Your task to perform on an android device: change text size in settings app Image 0: 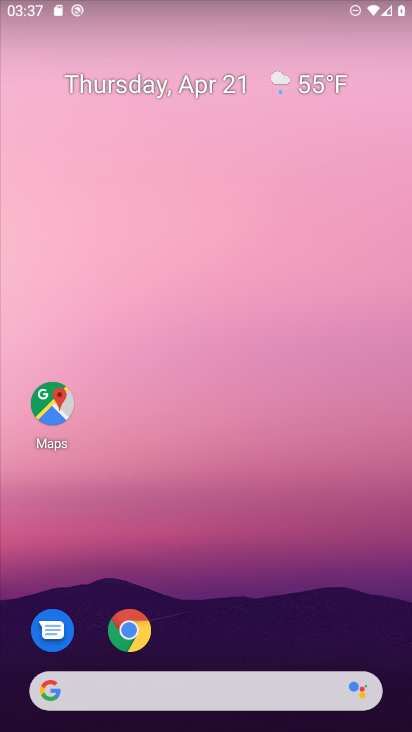
Step 0: drag from (297, 610) to (268, 47)
Your task to perform on an android device: change text size in settings app Image 1: 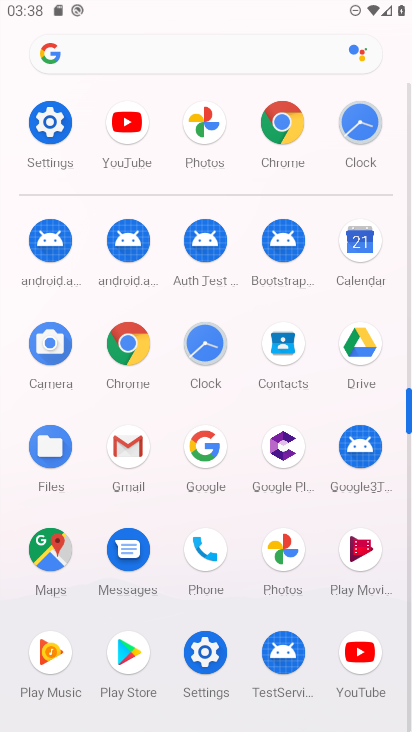
Step 1: click (208, 646)
Your task to perform on an android device: change text size in settings app Image 2: 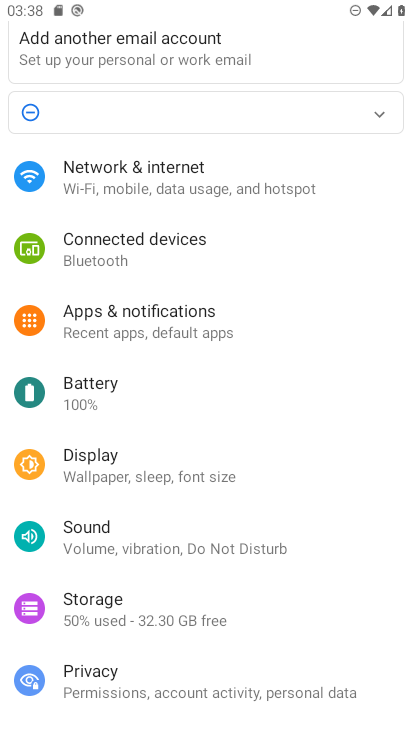
Step 2: click (225, 489)
Your task to perform on an android device: change text size in settings app Image 3: 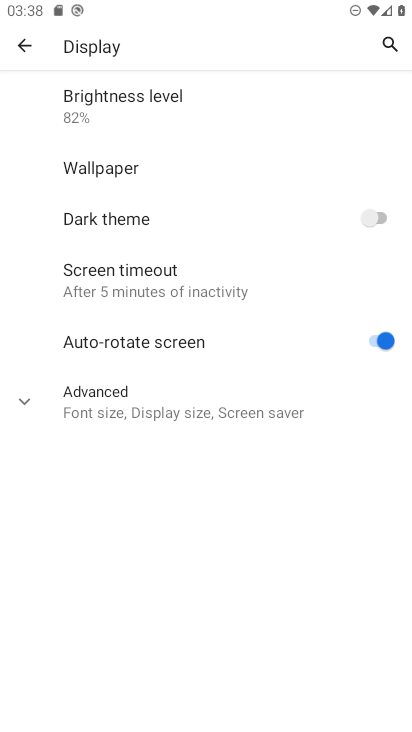
Step 3: click (238, 380)
Your task to perform on an android device: change text size in settings app Image 4: 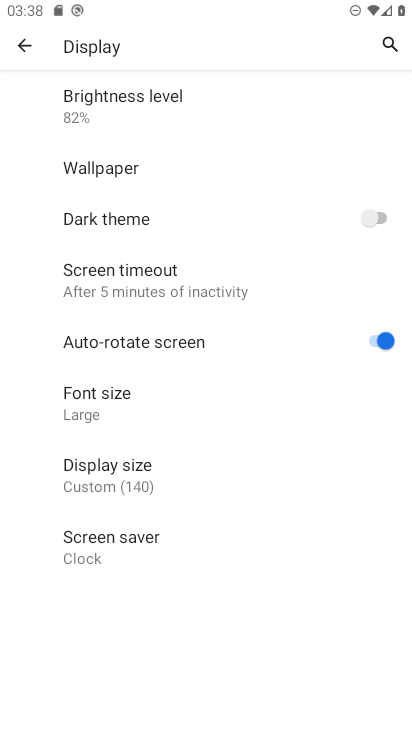
Step 4: click (186, 406)
Your task to perform on an android device: change text size in settings app Image 5: 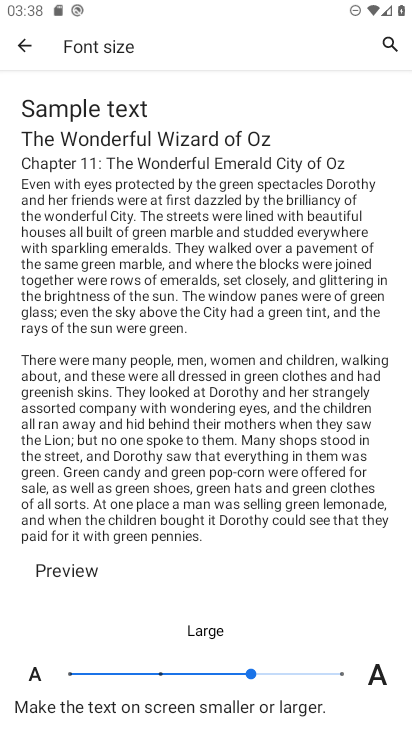
Step 5: click (160, 671)
Your task to perform on an android device: change text size in settings app Image 6: 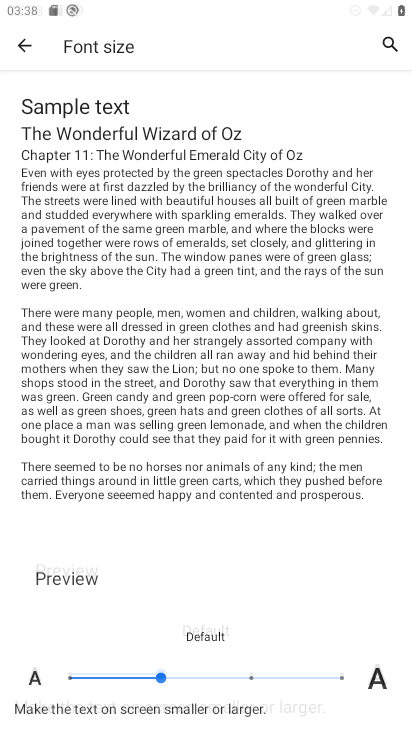
Step 6: task complete